Your task to perform on an android device: turn on priority inbox in the gmail app Image 0: 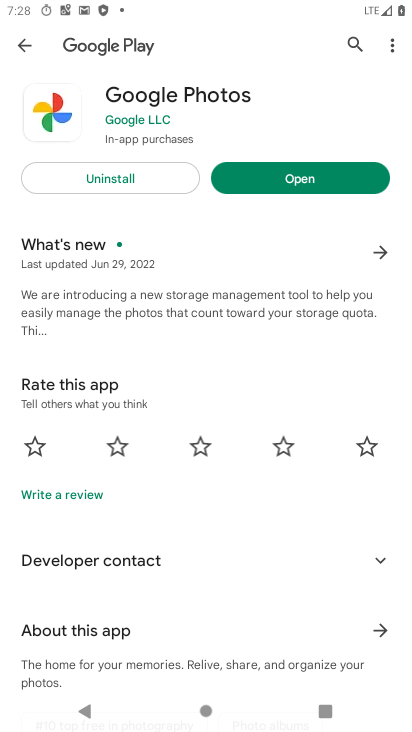
Step 0: press home button
Your task to perform on an android device: turn on priority inbox in the gmail app Image 1: 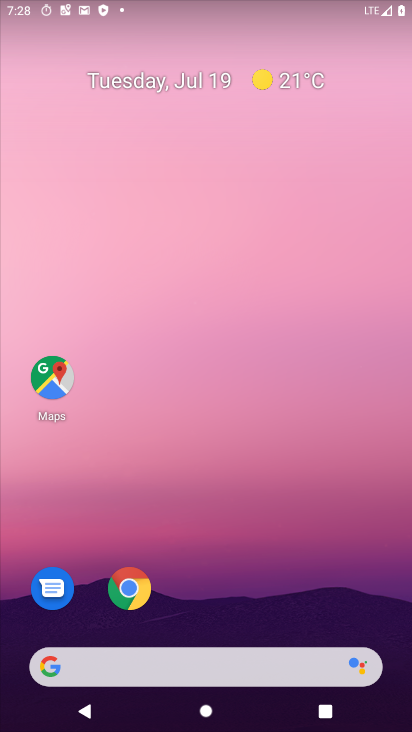
Step 1: drag from (282, 563) to (248, 128)
Your task to perform on an android device: turn on priority inbox in the gmail app Image 2: 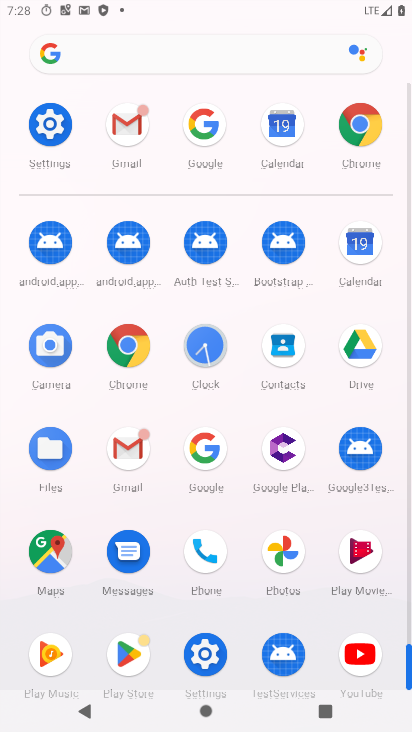
Step 2: click (122, 461)
Your task to perform on an android device: turn on priority inbox in the gmail app Image 3: 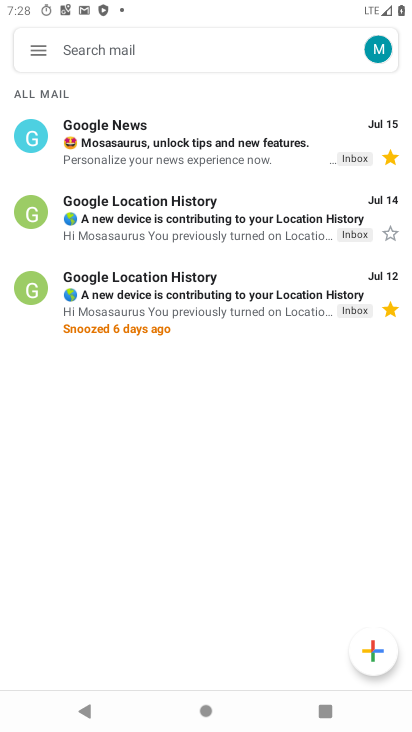
Step 3: click (37, 68)
Your task to perform on an android device: turn on priority inbox in the gmail app Image 4: 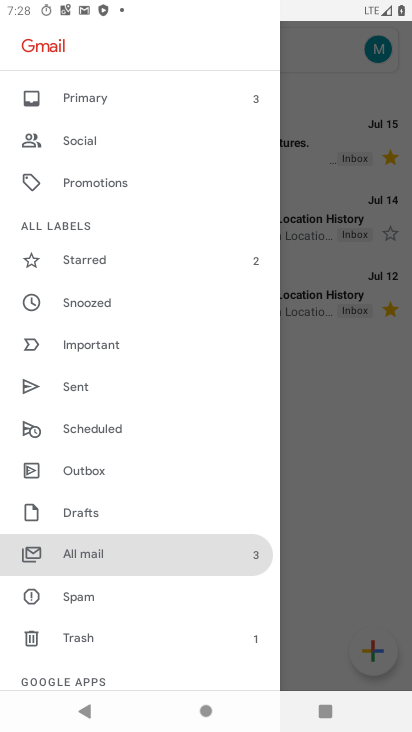
Step 4: drag from (116, 573) to (117, 136)
Your task to perform on an android device: turn on priority inbox in the gmail app Image 5: 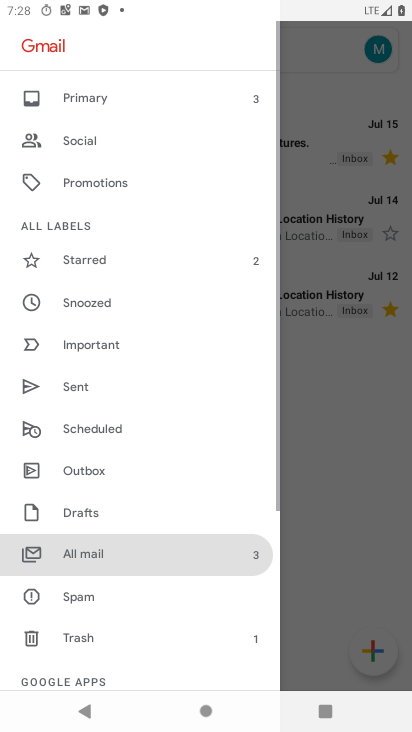
Step 5: drag from (80, 525) to (103, 172)
Your task to perform on an android device: turn on priority inbox in the gmail app Image 6: 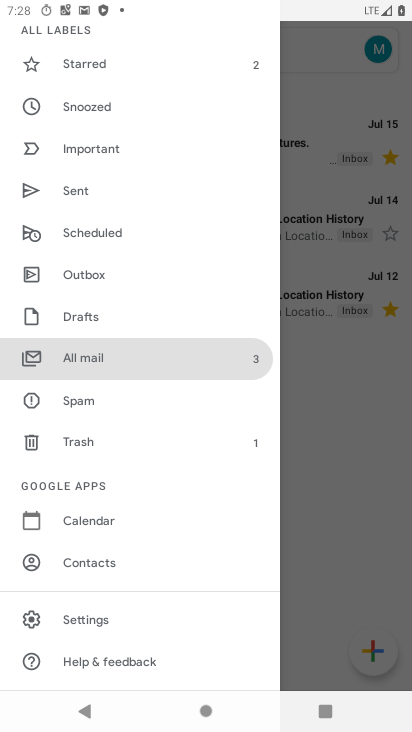
Step 6: click (92, 631)
Your task to perform on an android device: turn on priority inbox in the gmail app Image 7: 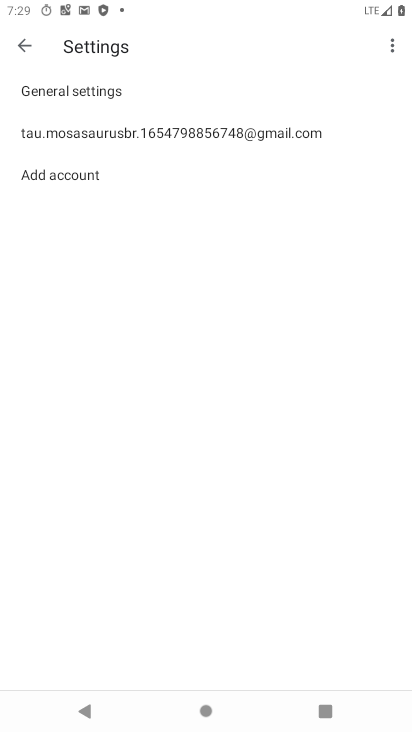
Step 7: click (187, 94)
Your task to perform on an android device: turn on priority inbox in the gmail app Image 8: 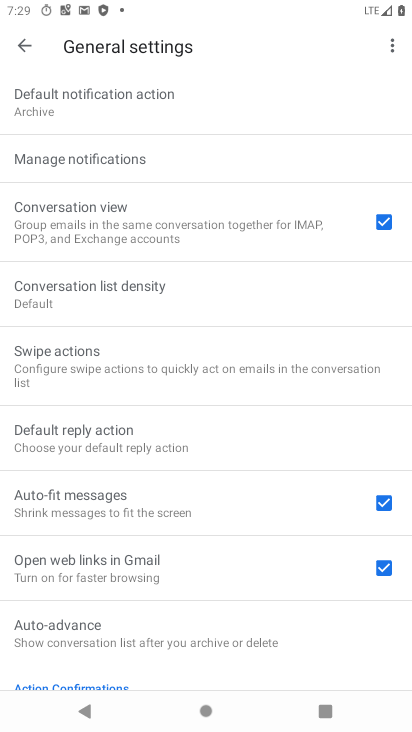
Step 8: drag from (179, 177) to (268, 671)
Your task to perform on an android device: turn on priority inbox in the gmail app Image 9: 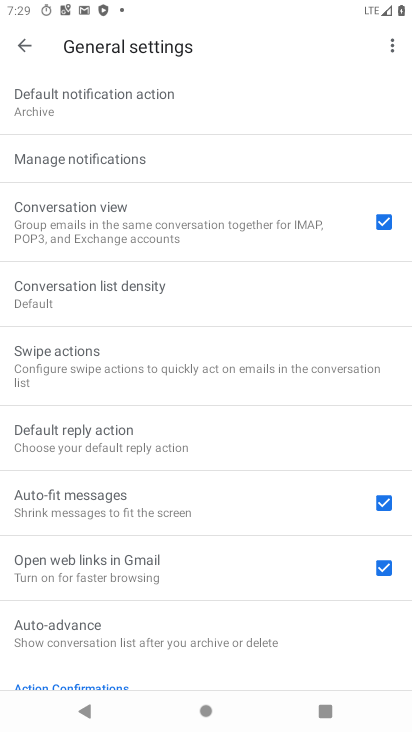
Step 9: press back button
Your task to perform on an android device: turn on priority inbox in the gmail app Image 10: 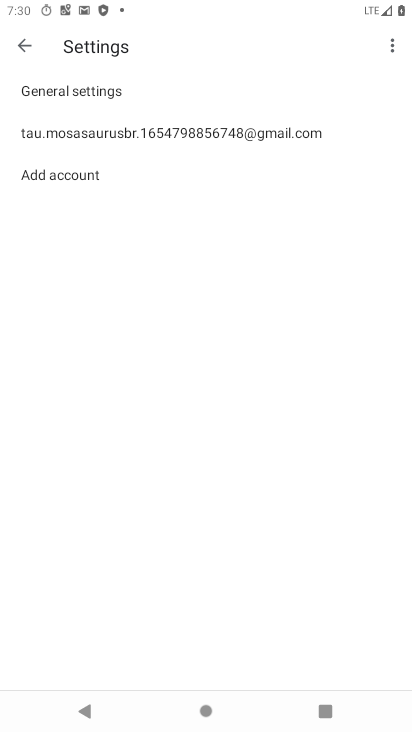
Step 10: click (152, 132)
Your task to perform on an android device: turn on priority inbox in the gmail app Image 11: 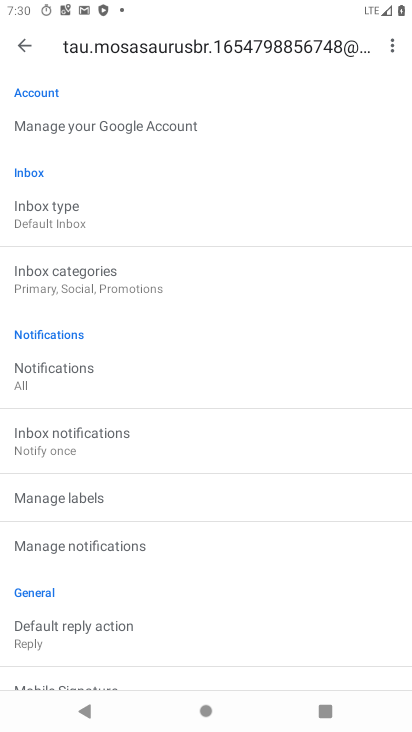
Step 11: click (71, 218)
Your task to perform on an android device: turn on priority inbox in the gmail app Image 12: 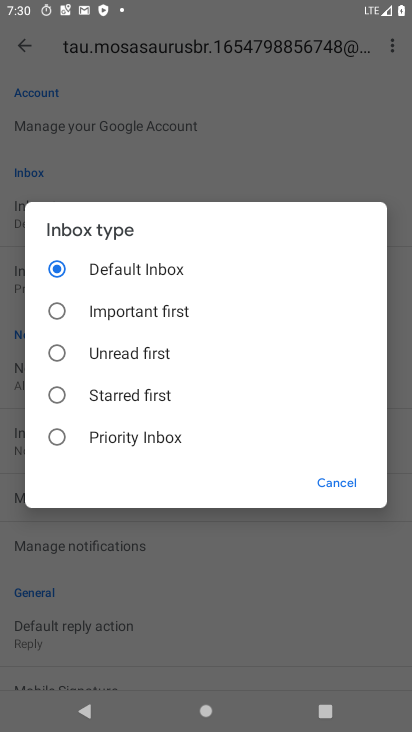
Step 12: click (123, 447)
Your task to perform on an android device: turn on priority inbox in the gmail app Image 13: 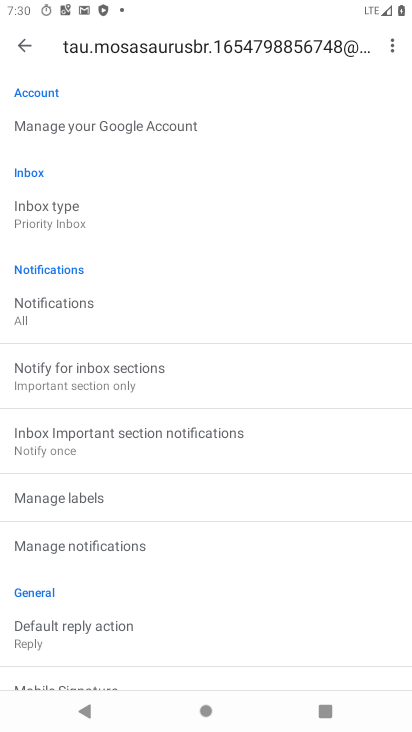
Step 13: task complete